Your task to perform on an android device: Open ESPN.com Image 0: 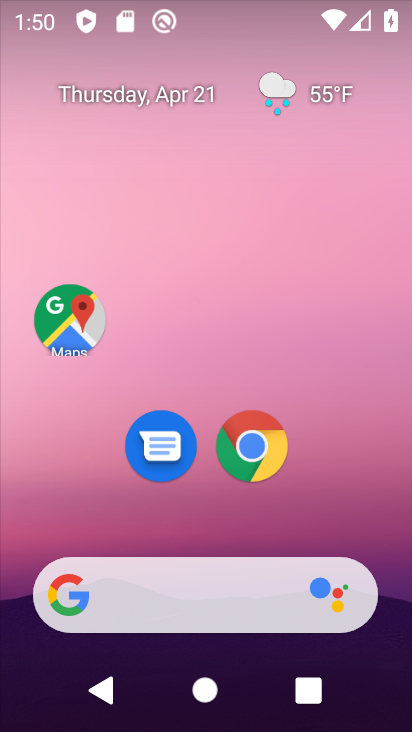
Step 0: click (252, 456)
Your task to perform on an android device: Open ESPN.com Image 1: 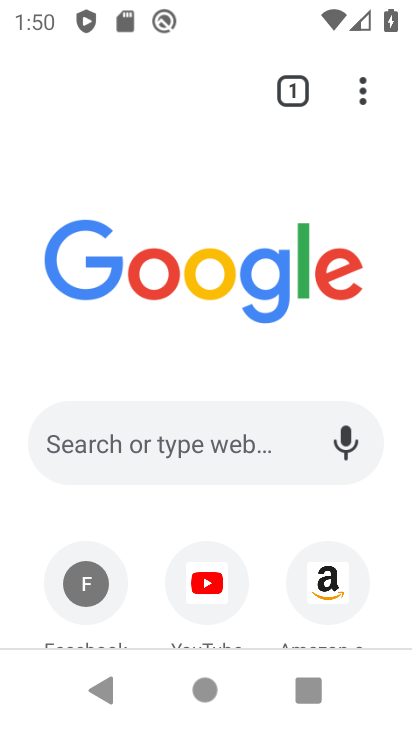
Step 1: click (195, 440)
Your task to perform on an android device: Open ESPN.com Image 2: 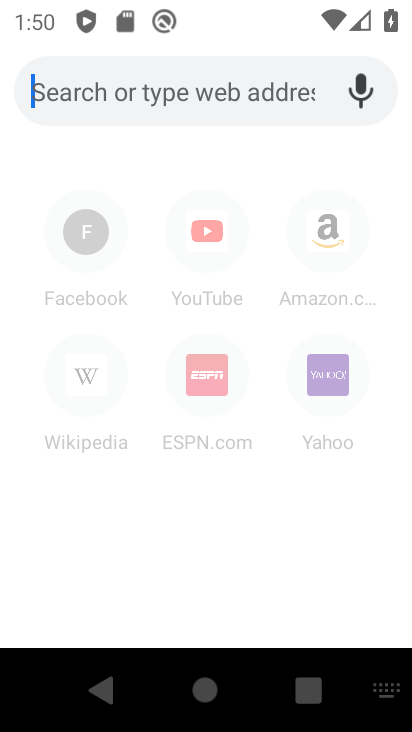
Step 2: type "ESPN.com"
Your task to perform on an android device: Open ESPN.com Image 3: 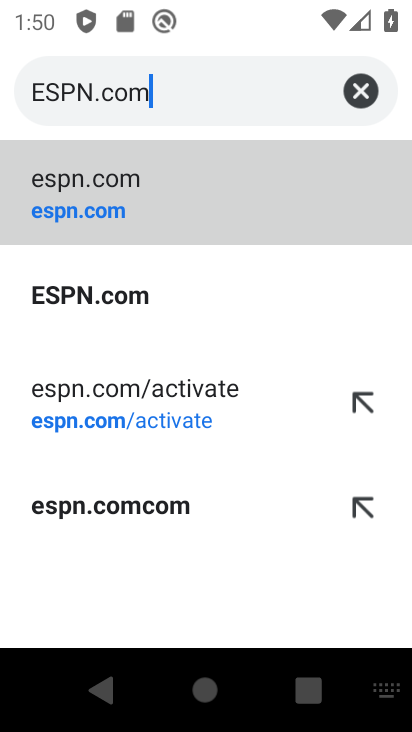
Step 3: click (113, 198)
Your task to perform on an android device: Open ESPN.com Image 4: 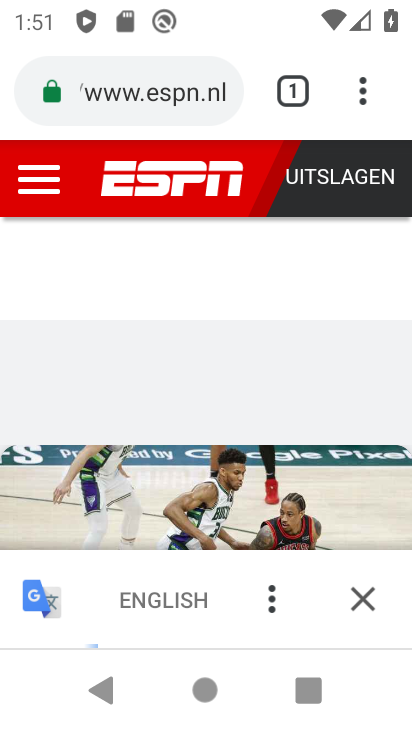
Step 4: task complete